Your task to perform on an android device: Is it going to rain this weekend? Image 0: 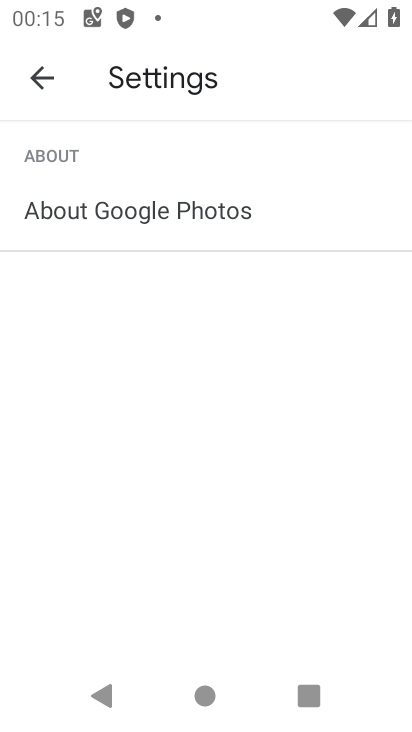
Step 0: press home button
Your task to perform on an android device: Is it going to rain this weekend? Image 1: 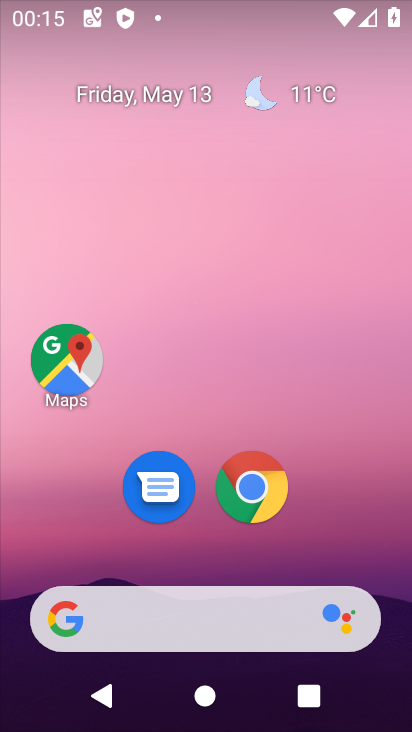
Step 1: click (321, 96)
Your task to perform on an android device: Is it going to rain this weekend? Image 2: 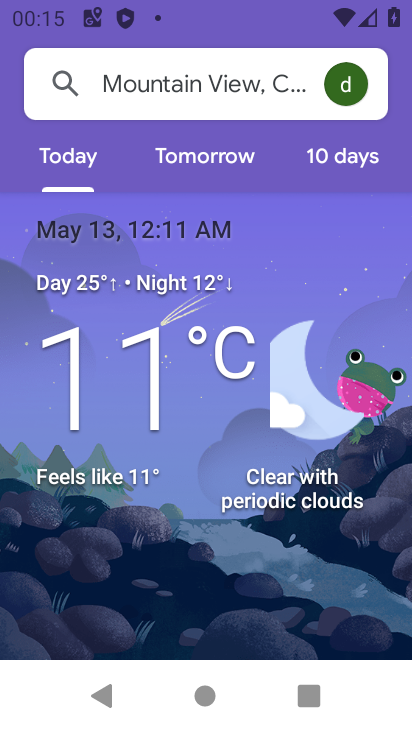
Step 2: click (353, 151)
Your task to perform on an android device: Is it going to rain this weekend? Image 3: 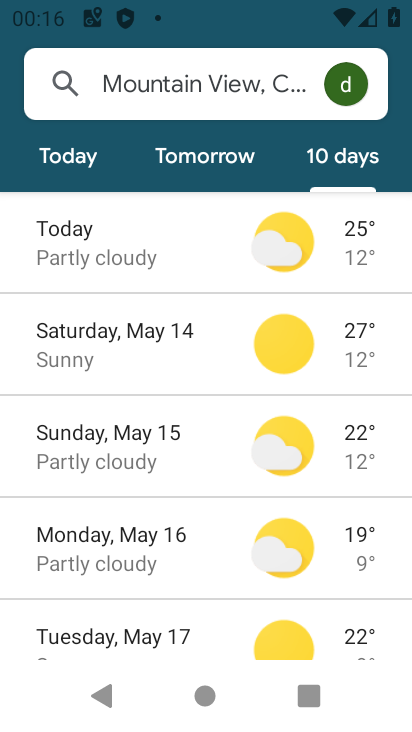
Step 3: click (134, 429)
Your task to perform on an android device: Is it going to rain this weekend? Image 4: 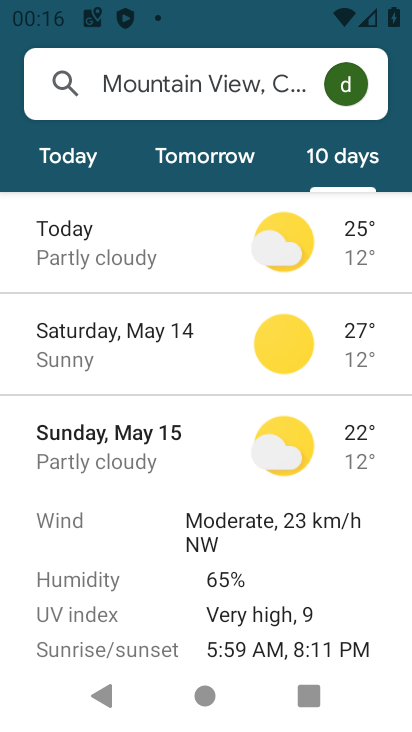
Step 4: task complete